Your task to perform on an android device: empty trash in the gmail app Image 0: 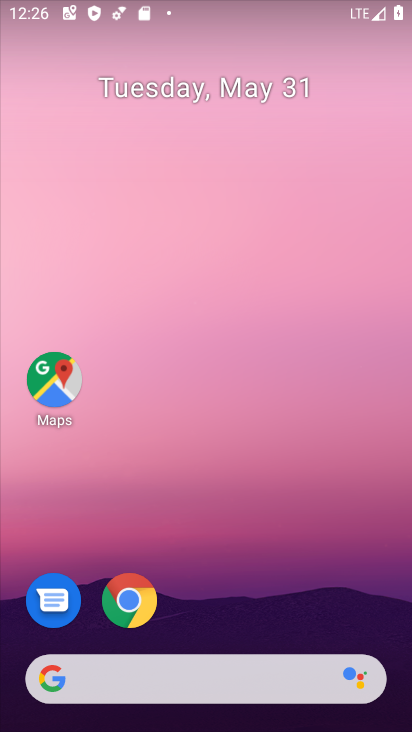
Step 0: drag from (220, 725) to (211, 117)
Your task to perform on an android device: empty trash in the gmail app Image 1: 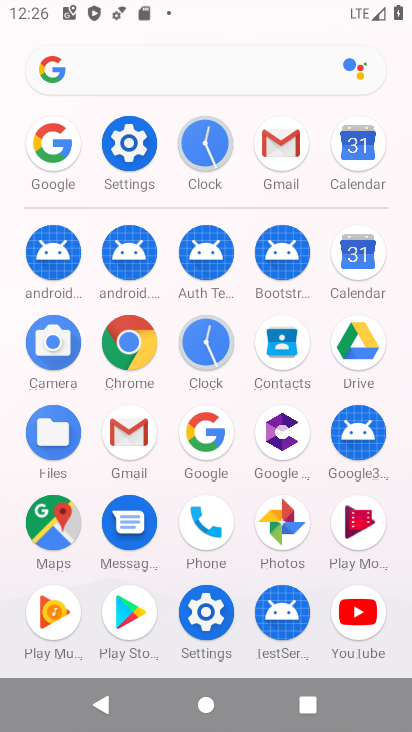
Step 1: click (116, 436)
Your task to perform on an android device: empty trash in the gmail app Image 2: 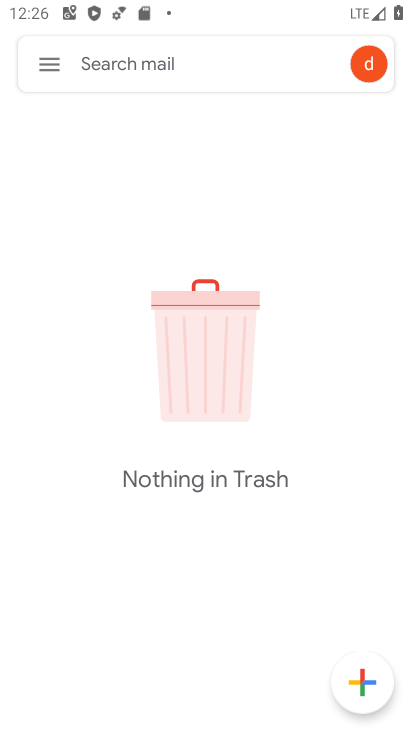
Step 2: click (49, 65)
Your task to perform on an android device: empty trash in the gmail app Image 3: 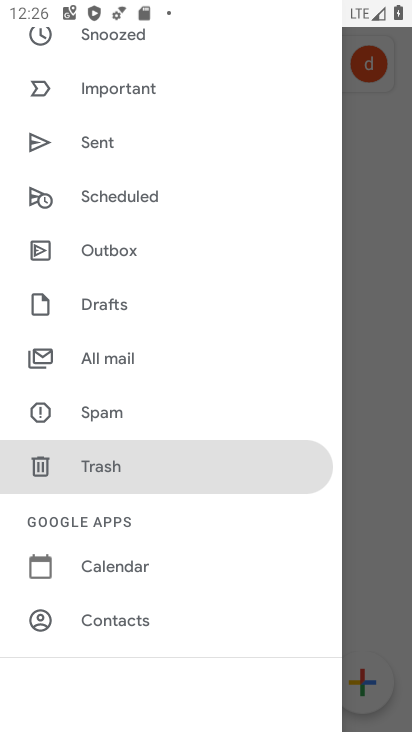
Step 3: click (109, 465)
Your task to perform on an android device: empty trash in the gmail app Image 4: 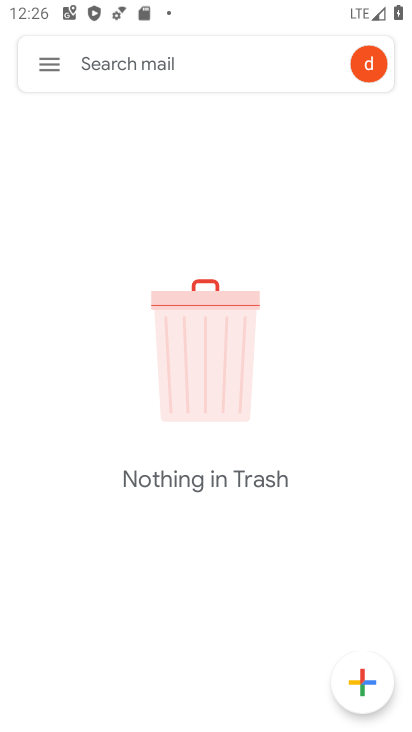
Step 4: task complete